Your task to perform on an android device: Open internet settings Image 0: 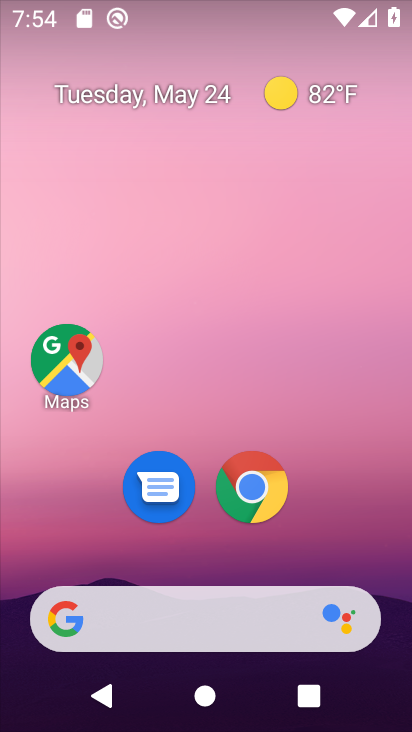
Step 0: drag from (336, 518) to (339, 143)
Your task to perform on an android device: Open internet settings Image 1: 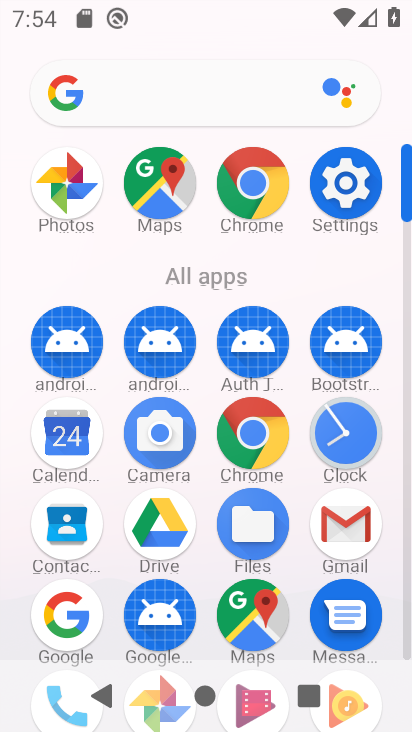
Step 1: click (355, 188)
Your task to perform on an android device: Open internet settings Image 2: 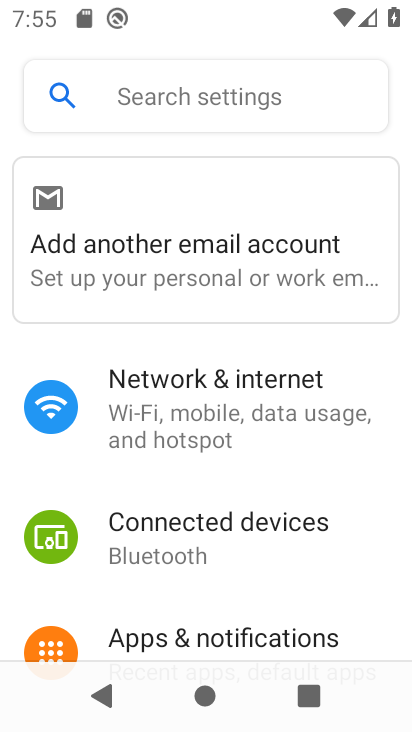
Step 2: click (211, 417)
Your task to perform on an android device: Open internet settings Image 3: 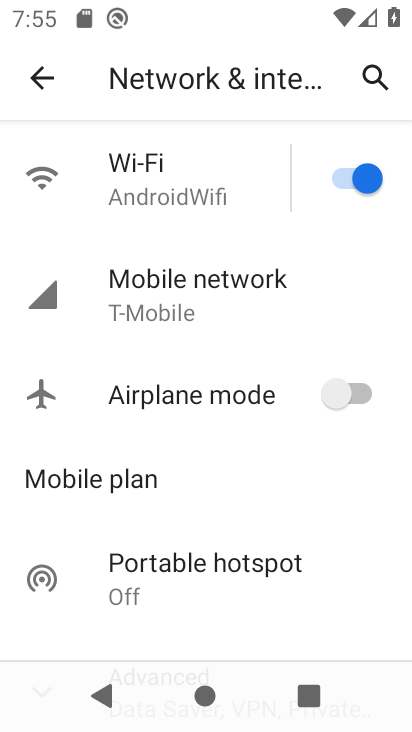
Step 3: task complete